Your task to perform on an android device: empty trash in google photos Image 0: 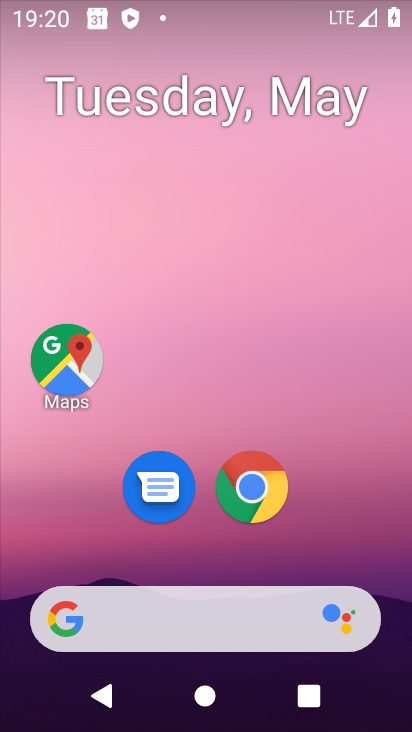
Step 0: drag from (352, 501) to (240, 69)
Your task to perform on an android device: empty trash in google photos Image 1: 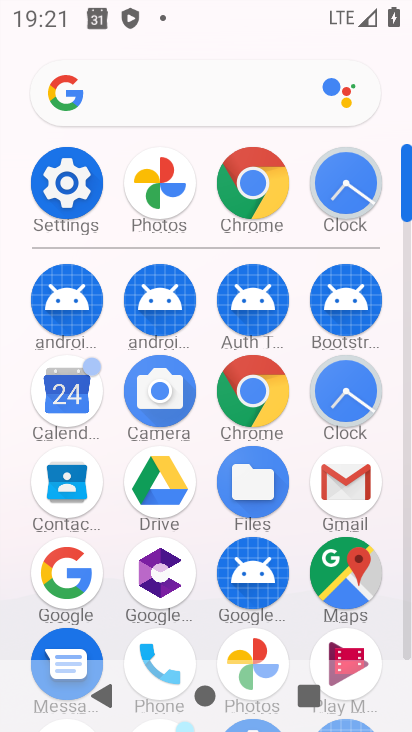
Step 1: click (159, 178)
Your task to perform on an android device: empty trash in google photos Image 2: 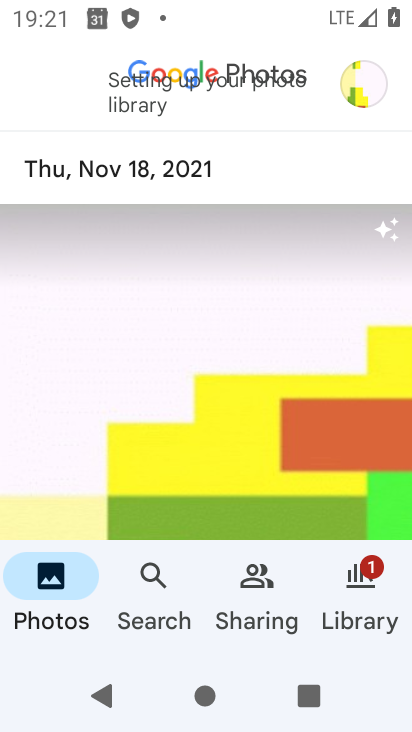
Step 2: click (348, 582)
Your task to perform on an android device: empty trash in google photos Image 3: 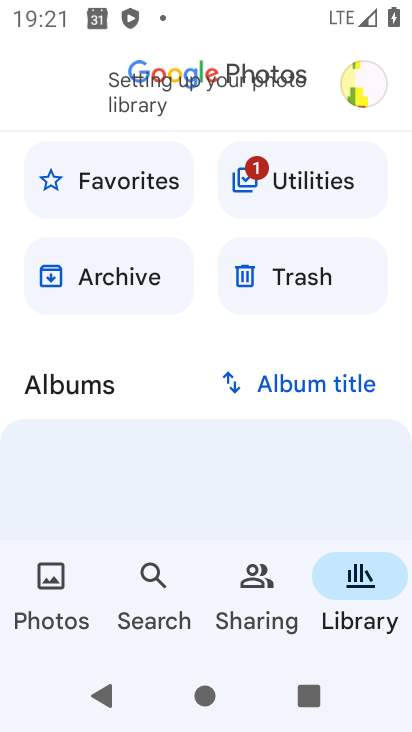
Step 3: click (277, 271)
Your task to perform on an android device: empty trash in google photos Image 4: 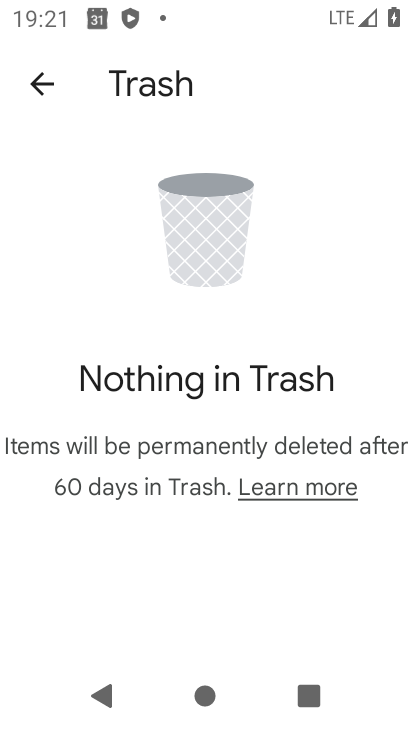
Step 4: task complete